Your task to perform on an android device: clear history in the chrome app Image 0: 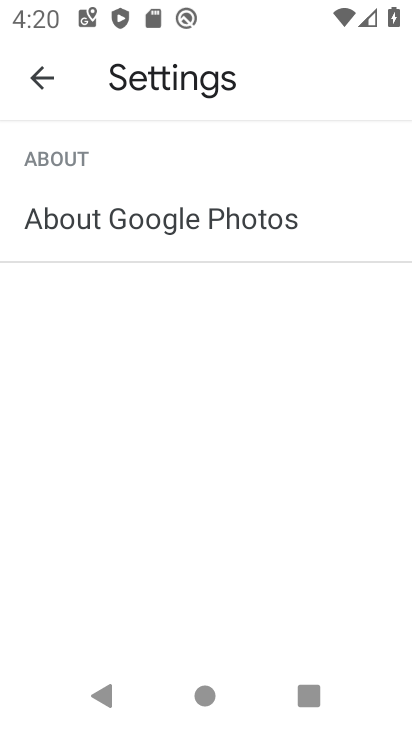
Step 0: press home button
Your task to perform on an android device: clear history in the chrome app Image 1: 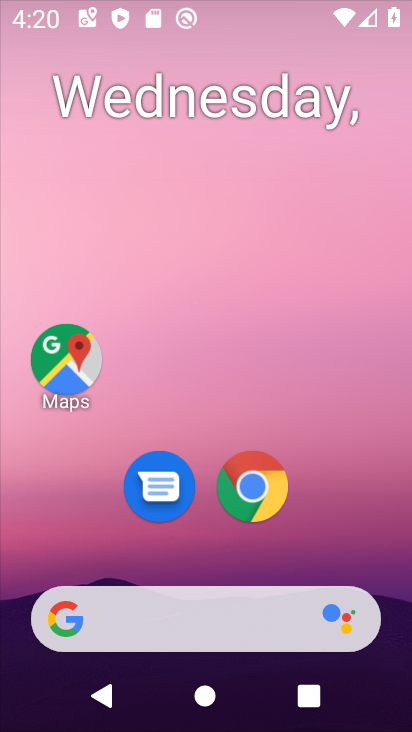
Step 1: drag from (205, 707) to (200, 140)
Your task to perform on an android device: clear history in the chrome app Image 2: 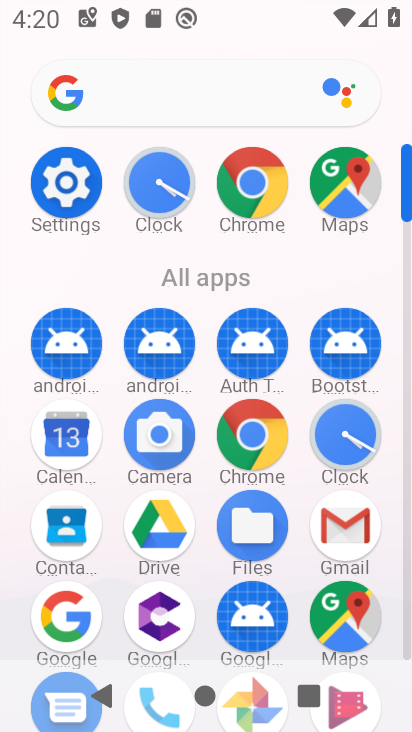
Step 2: click (253, 190)
Your task to perform on an android device: clear history in the chrome app Image 3: 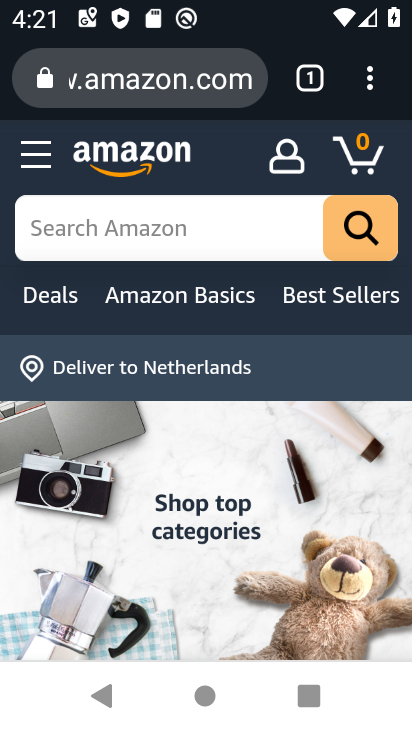
Step 3: click (371, 86)
Your task to perform on an android device: clear history in the chrome app Image 4: 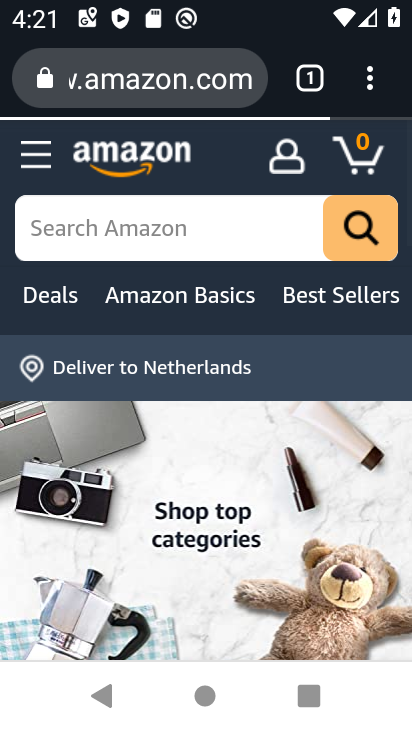
Step 4: click (381, 77)
Your task to perform on an android device: clear history in the chrome app Image 5: 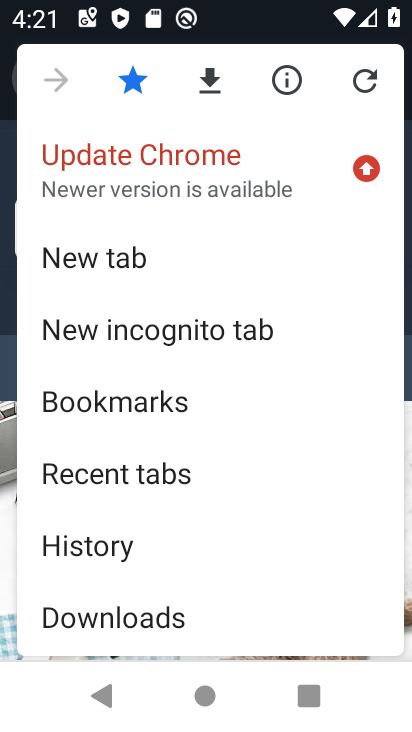
Step 5: click (135, 547)
Your task to perform on an android device: clear history in the chrome app Image 6: 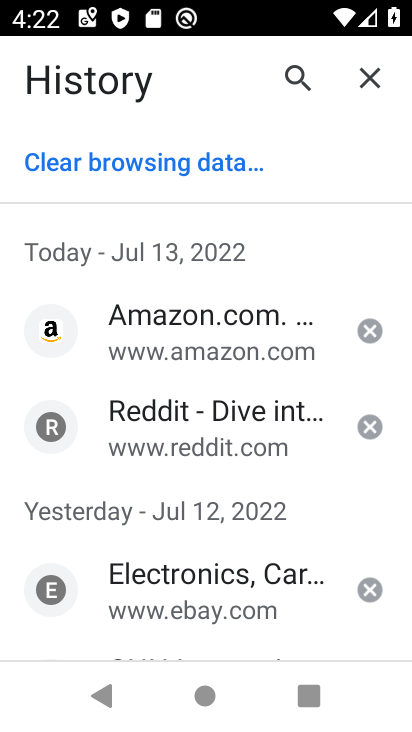
Step 6: click (171, 151)
Your task to perform on an android device: clear history in the chrome app Image 7: 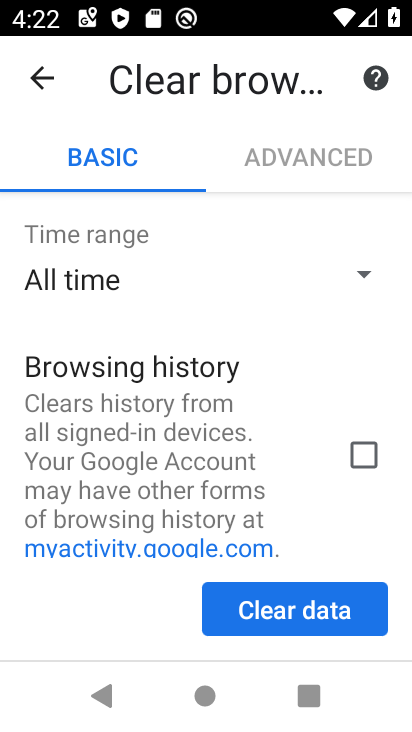
Step 7: click (343, 446)
Your task to perform on an android device: clear history in the chrome app Image 8: 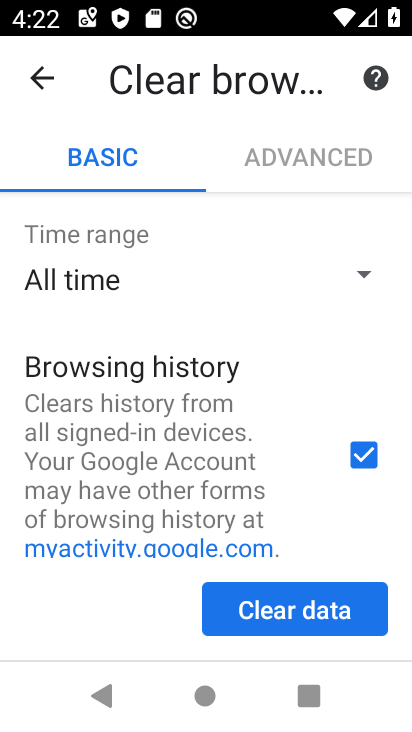
Step 8: click (326, 613)
Your task to perform on an android device: clear history in the chrome app Image 9: 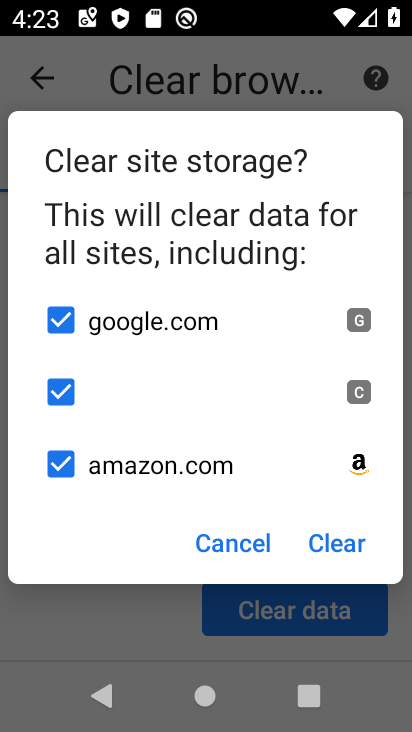
Step 9: click (348, 540)
Your task to perform on an android device: clear history in the chrome app Image 10: 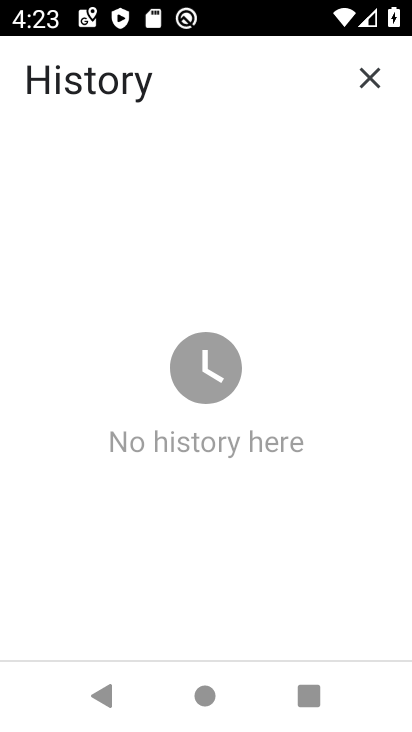
Step 10: task complete